Your task to perform on an android device: add a contact Image 0: 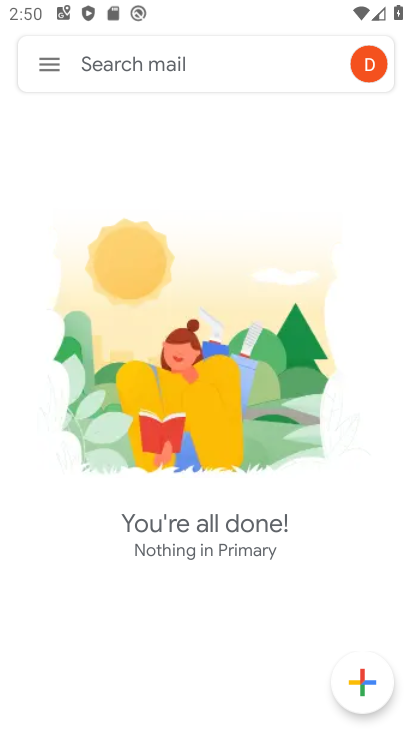
Step 0: press home button
Your task to perform on an android device: add a contact Image 1: 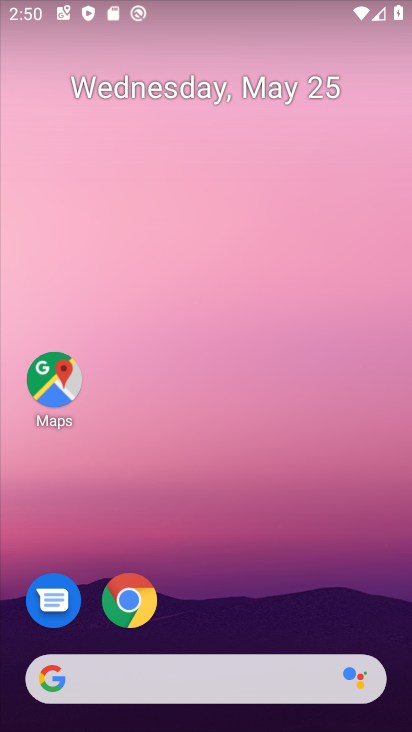
Step 1: drag from (68, 495) to (168, 243)
Your task to perform on an android device: add a contact Image 2: 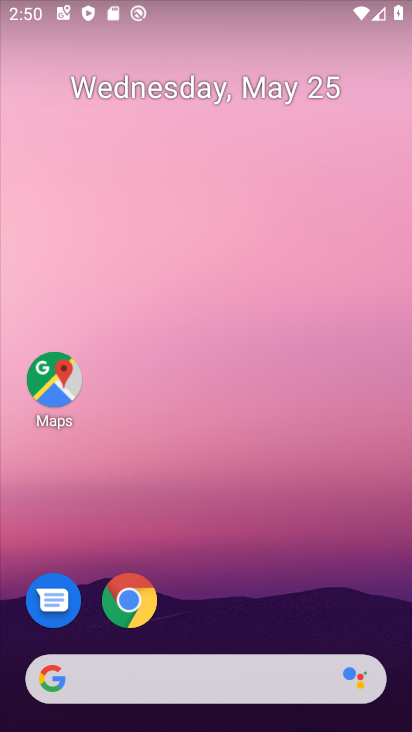
Step 2: drag from (30, 613) to (283, 126)
Your task to perform on an android device: add a contact Image 3: 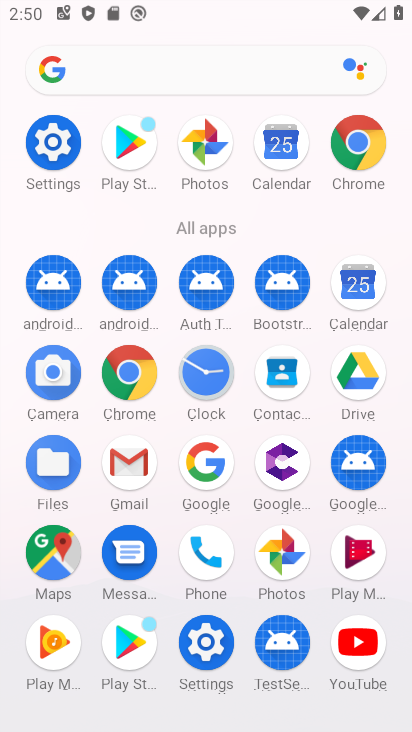
Step 3: click (199, 566)
Your task to perform on an android device: add a contact Image 4: 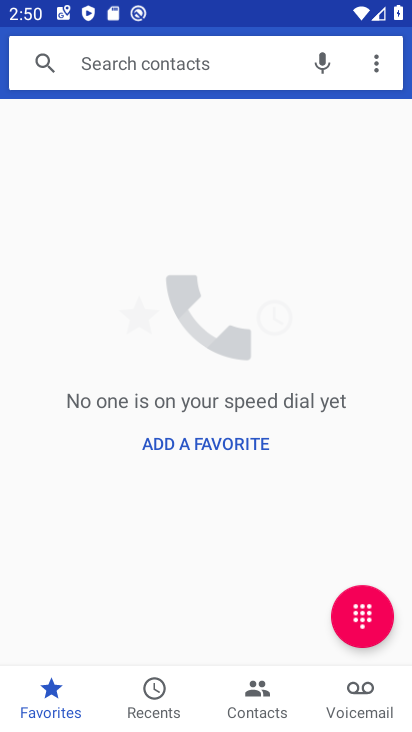
Step 4: click (260, 700)
Your task to perform on an android device: add a contact Image 5: 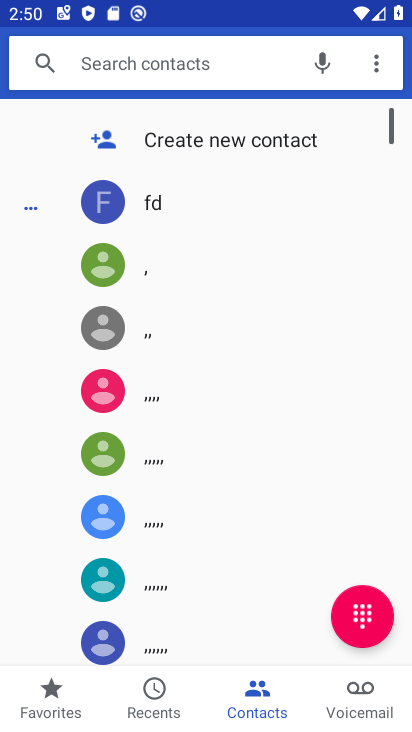
Step 5: click (192, 141)
Your task to perform on an android device: add a contact Image 6: 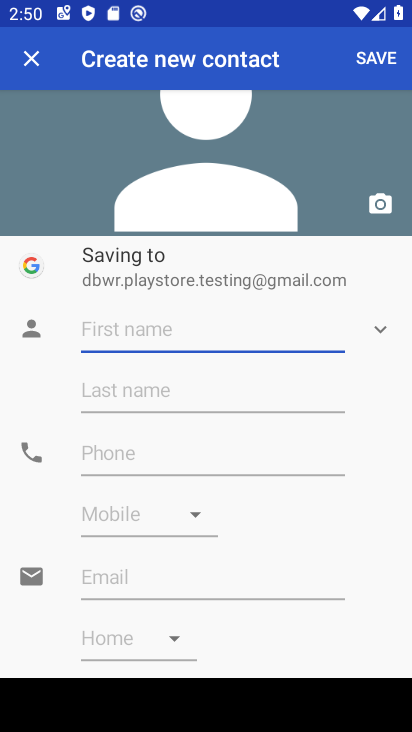
Step 6: click (186, 341)
Your task to perform on an android device: add a contact Image 7: 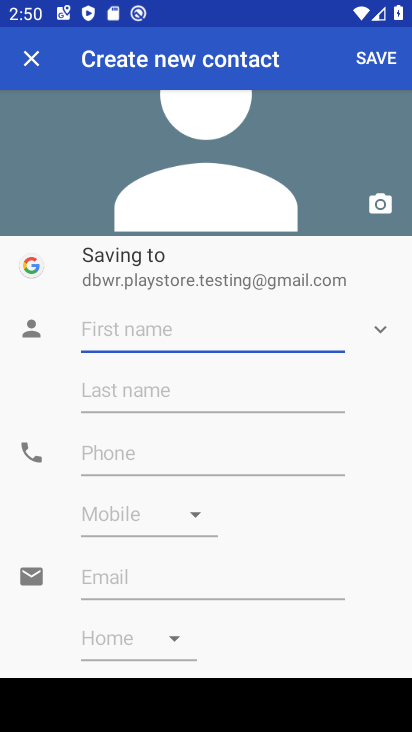
Step 7: type "gfgfgf"
Your task to perform on an android device: add a contact Image 8: 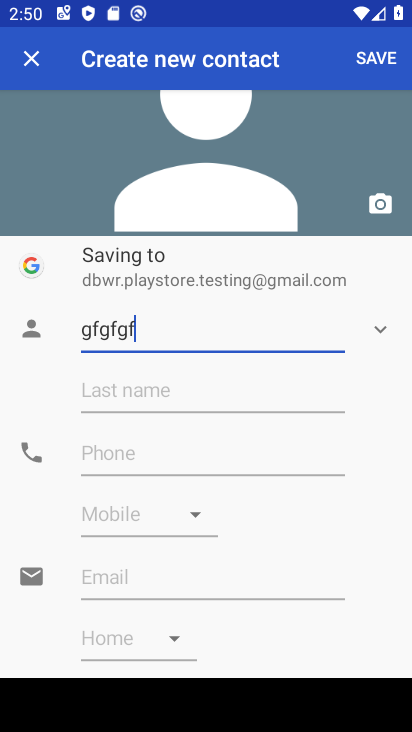
Step 8: type ""
Your task to perform on an android device: add a contact Image 9: 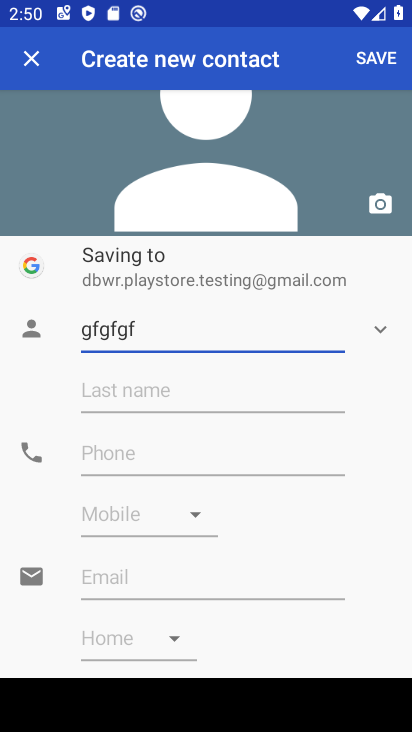
Step 9: click (386, 52)
Your task to perform on an android device: add a contact Image 10: 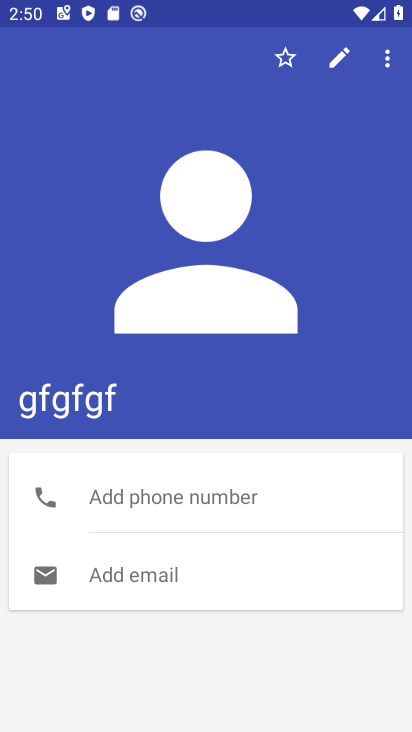
Step 10: task complete